Your task to perform on an android device: open wifi settings Image 0: 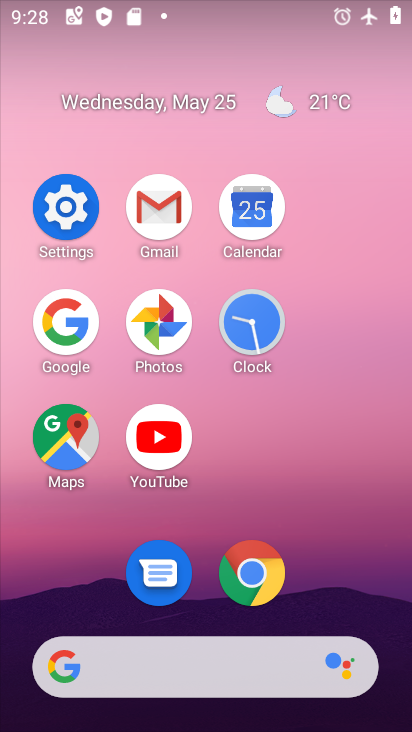
Step 0: click (88, 201)
Your task to perform on an android device: open wifi settings Image 1: 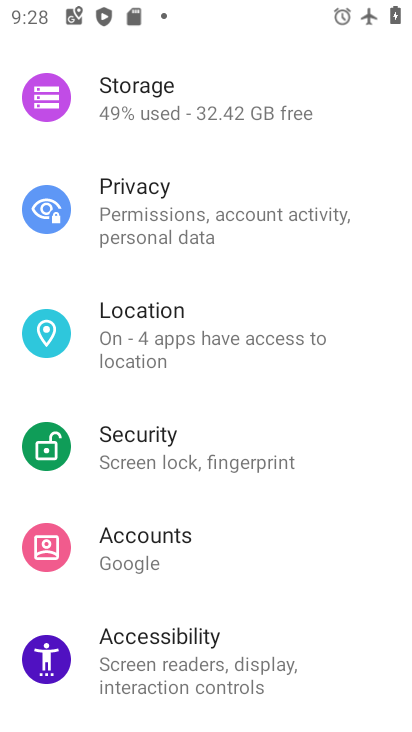
Step 1: drag from (314, 188) to (298, 706)
Your task to perform on an android device: open wifi settings Image 2: 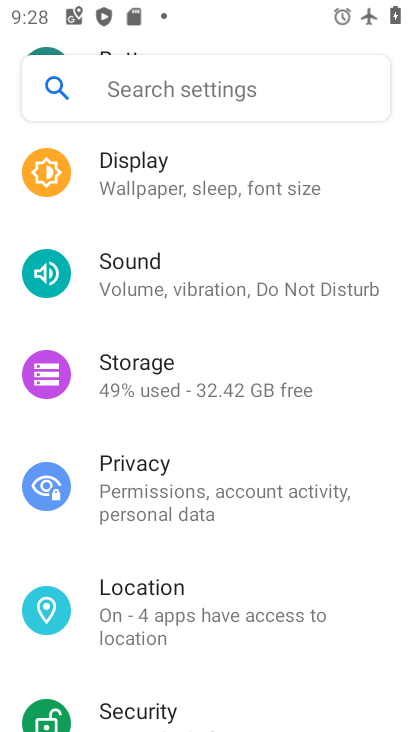
Step 2: drag from (280, 202) to (319, 585)
Your task to perform on an android device: open wifi settings Image 3: 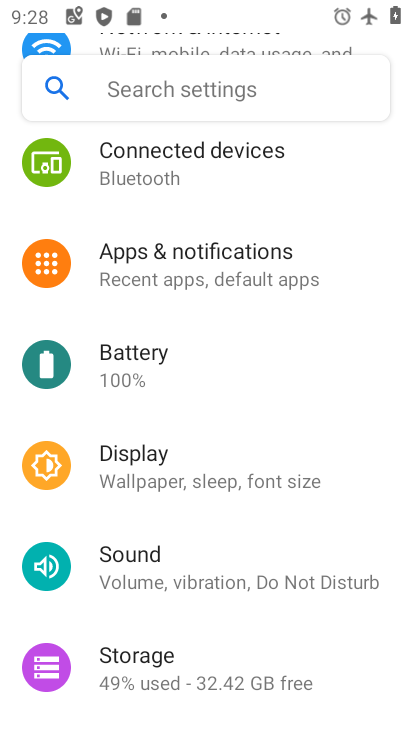
Step 3: drag from (347, 255) to (400, 628)
Your task to perform on an android device: open wifi settings Image 4: 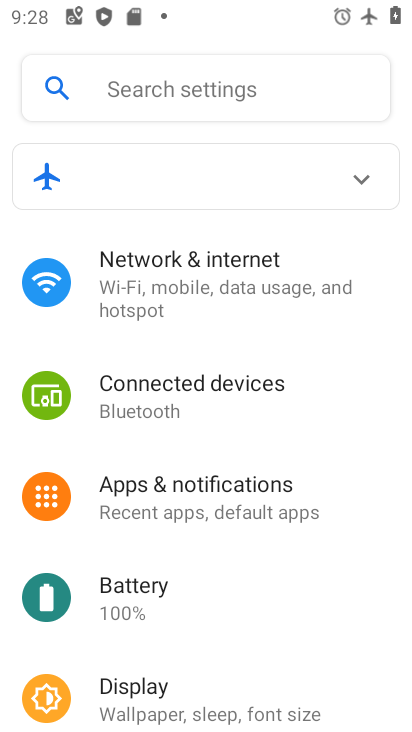
Step 4: click (284, 297)
Your task to perform on an android device: open wifi settings Image 5: 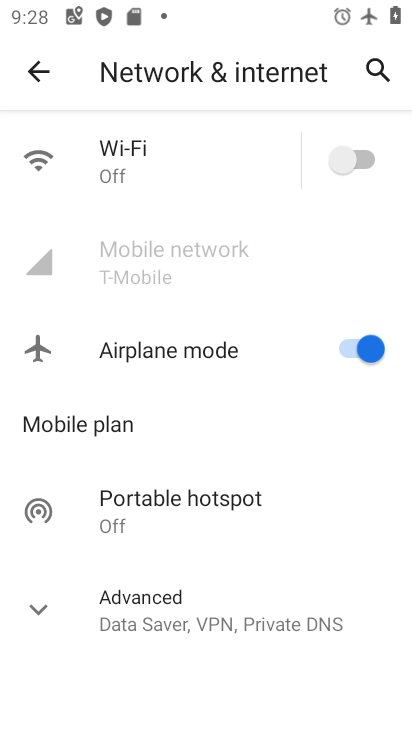
Step 5: click (182, 200)
Your task to perform on an android device: open wifi settings Image 6: 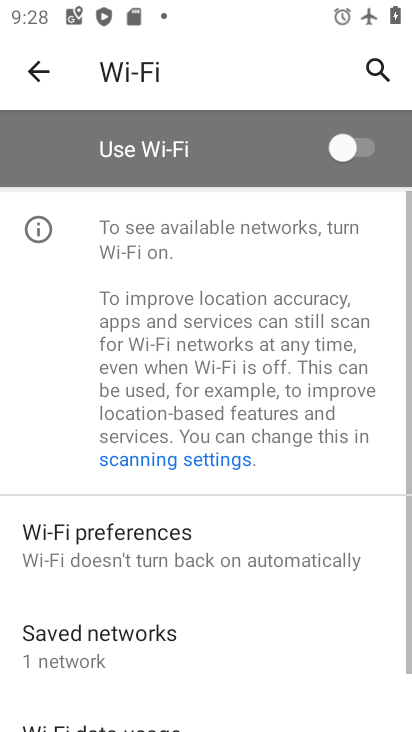
Step 6: click (341, 159)
Your task to perform on an android device: open wifi settings Image 7: 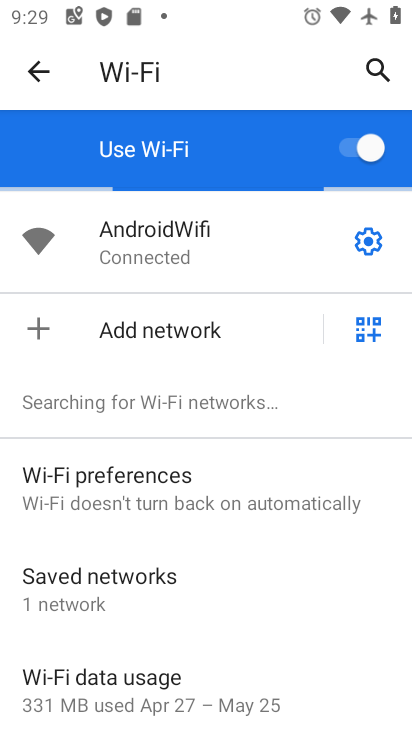
Step 7: click (357, 249)
Your task to perform on an android device: open wifi settings Image 8: 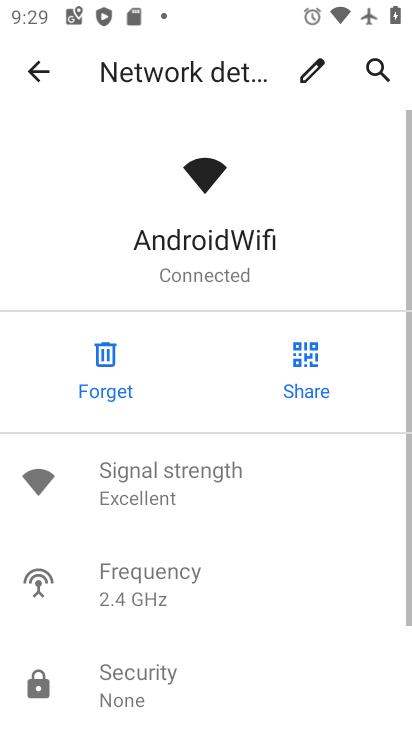
Step 8: task complete